Your task to perform on an android device: move a message to another label in the gmail app Image 0: 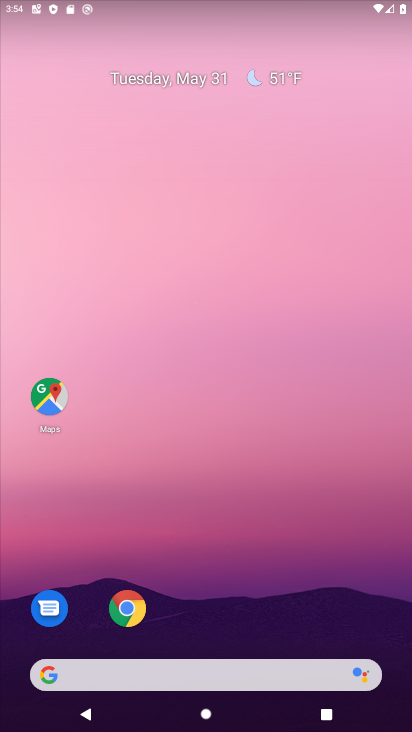
Step 0: drag from (178, 659) to (163, 309)
Your task to perform on an android device: move a message to another label in the gmail app Image 1: 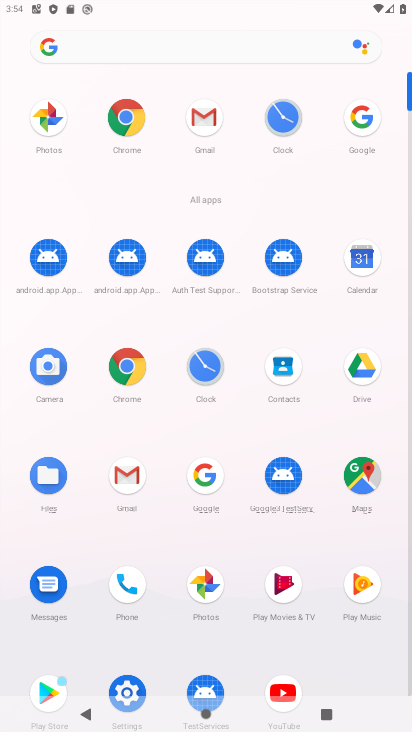
Step 1: click (131, 487)
Your task to perform on an android device: move a message to another label in the gmail app Image 2: 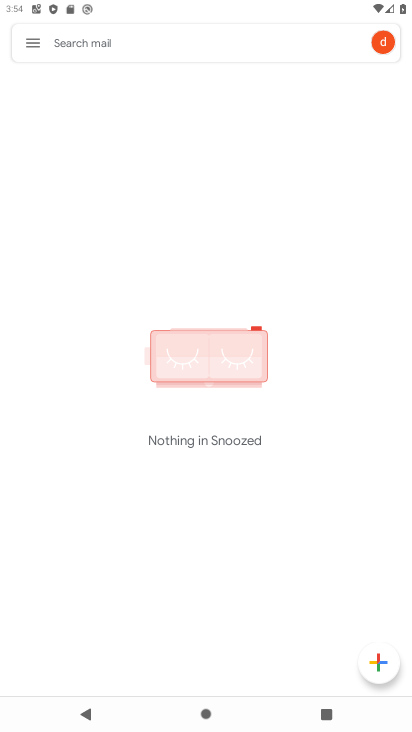
Step 2: task complete